Your task to perform on an android device: manage bookmarks in the chrome app Image 0: 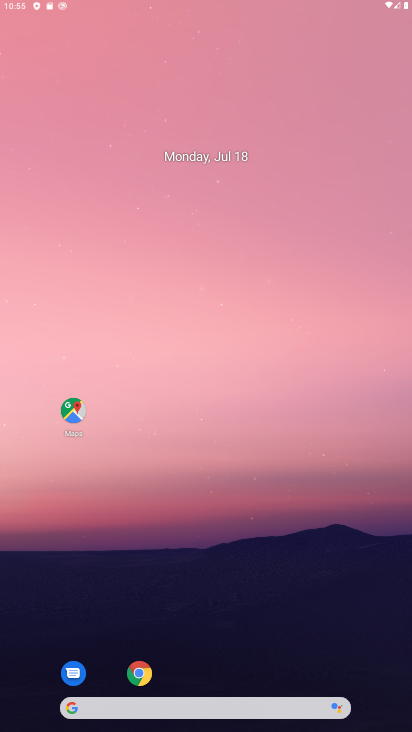
Step 0: press home button
Your task to perform on an android device: manage bookmarks in the chrome app Image 1: 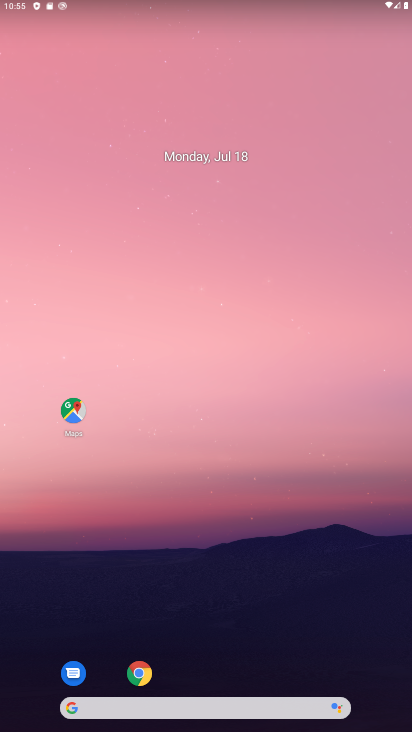
Step 1: click (136, 667)
Your task to perform on an android device: manage bookmarks in the chrome app Image 2: 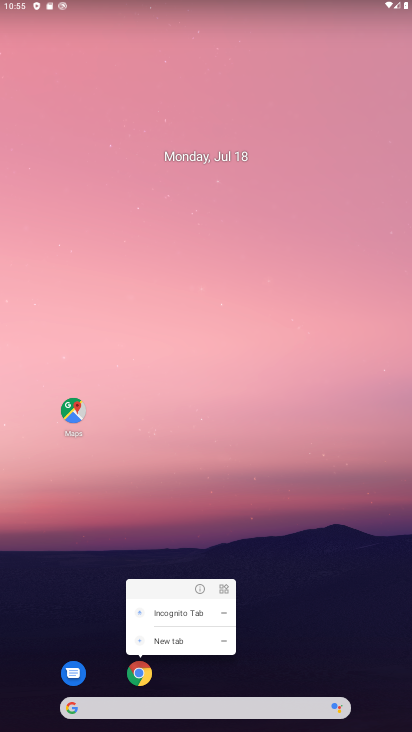
Step 2: click (137, 668)
Your task to perform on an android device: manage bookmarks in the chrome app Image 3: 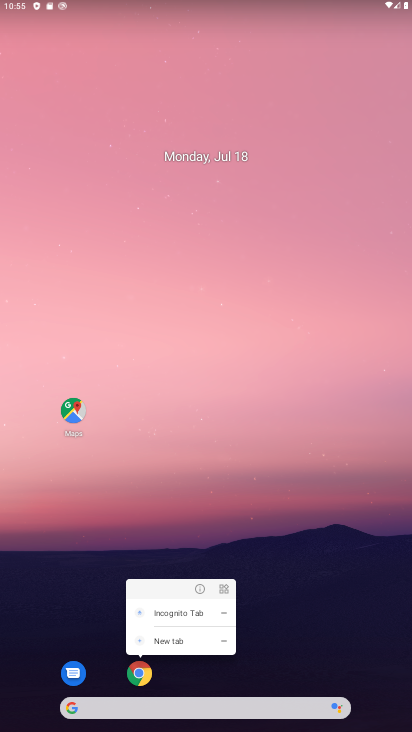
Step 3: click (137, 667)
Your task to perform on an android device: manage bookmarks in the chrome app Image 4: 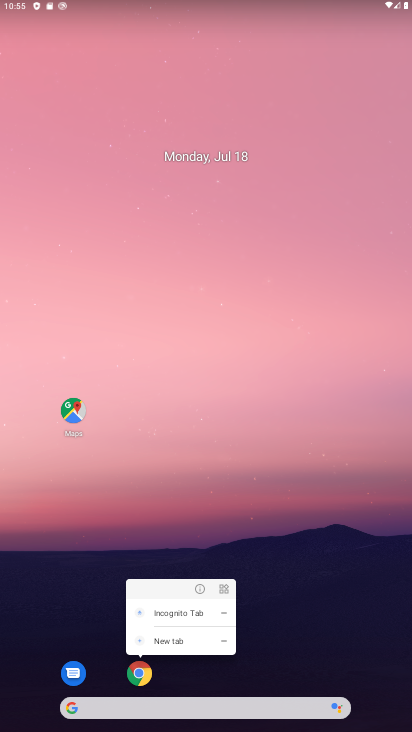
Step 4: click (137, 667)
Your task to perform on an android device: manage bookmarks in the chrome app Image 5: 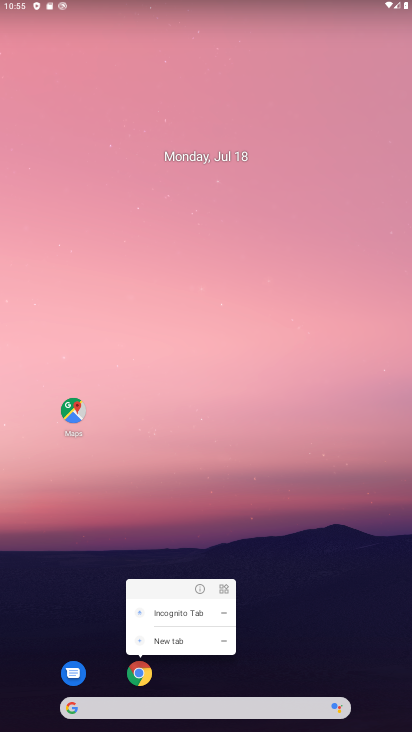
Step 5: click (137, 668)
Your task to perform on an android device: manage bookmarks in the chrome app Image 6: 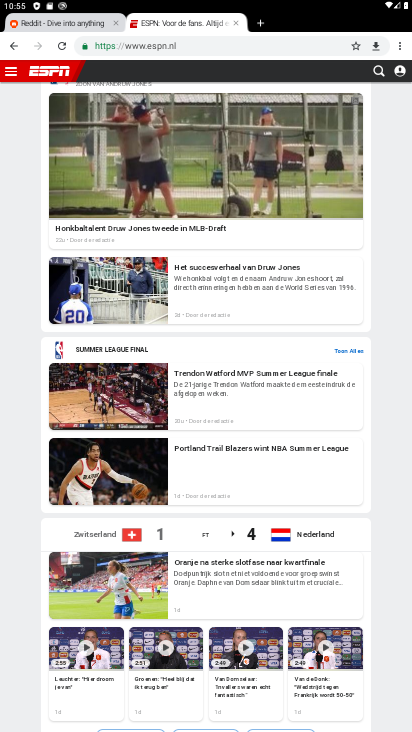
Step 6: click (401, 43)
Your task to perform on an android device: manage bookmarks in the chrome app Image 7: 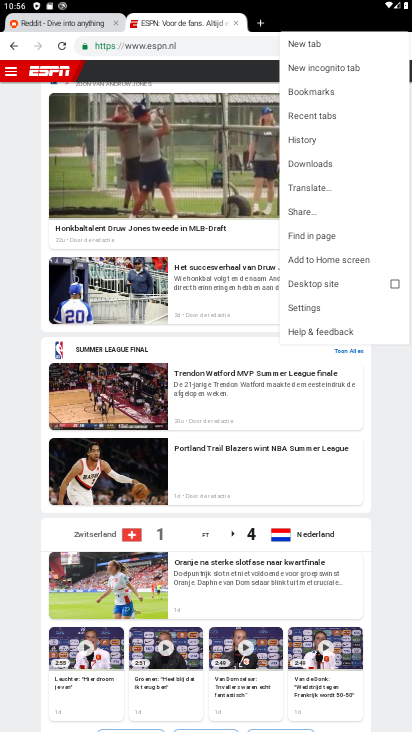
Step 7: click (340, 90)
Your task to perform on an android device: manage bookmarks in the chrome app Image 8: 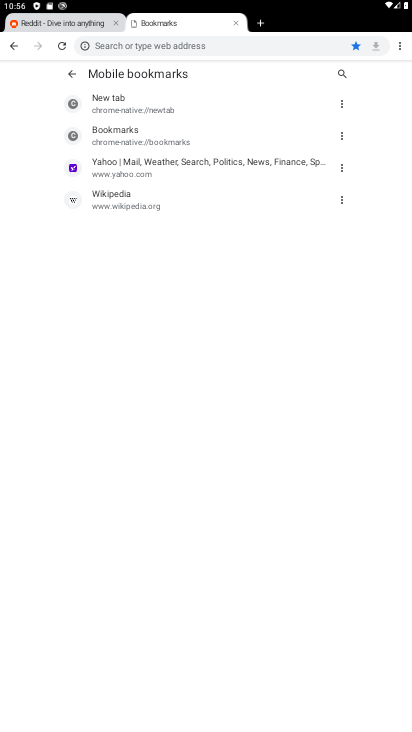
Step 8: click (344, 201)
Your task to perform on an android device: manage bookmarks in the chrome app Image 9: 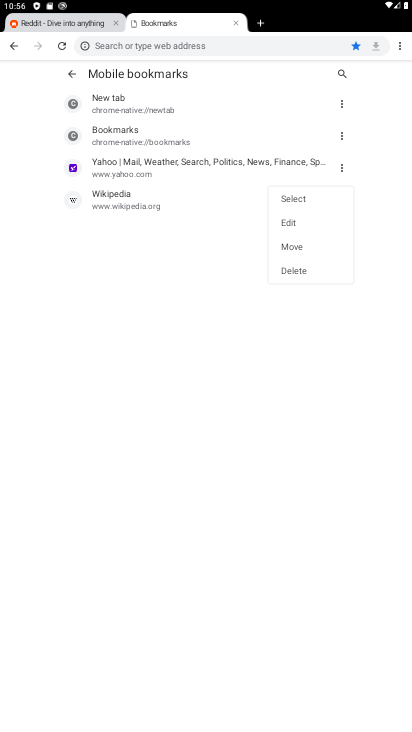
Step 9: click (305, 274)
Your task to perform on an android device: manage bookmarks in the chrome app Image 10: 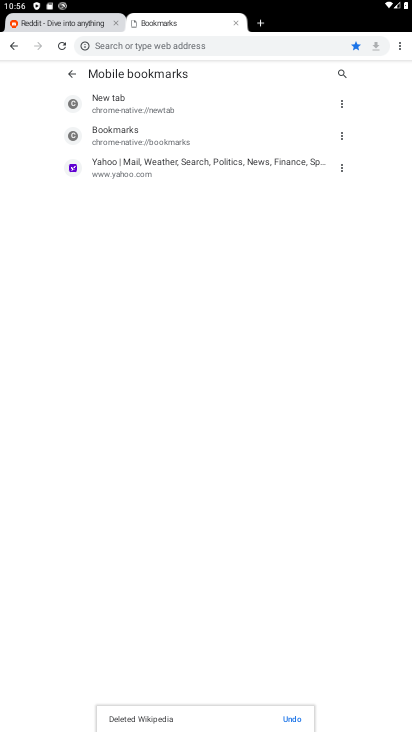
Step 10: task complete